Your task to perform on an android device: Open location settings Image 0: 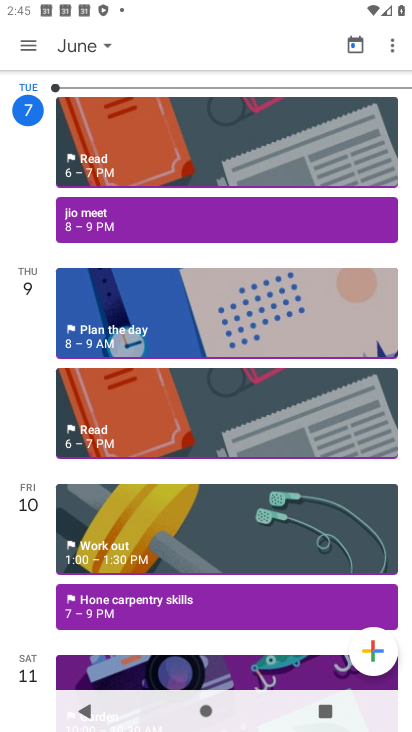
Step 0: press home button
Your task to perform on an android device: Open location settings Image 1: 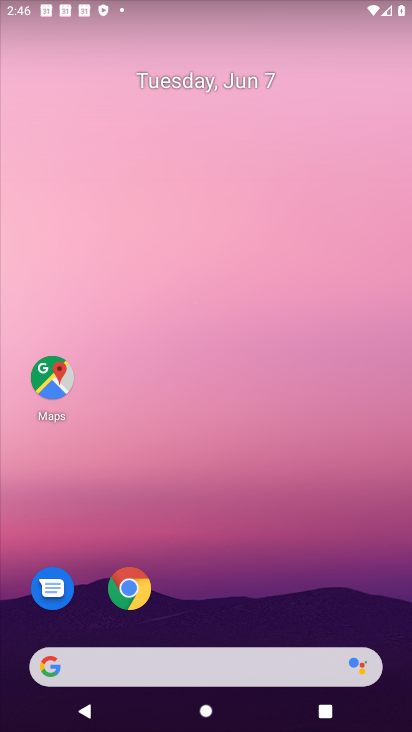
Step 1: drag from (319, 567) to (332, 122)
Your task to perform on an android device: Open location settings Image 2: 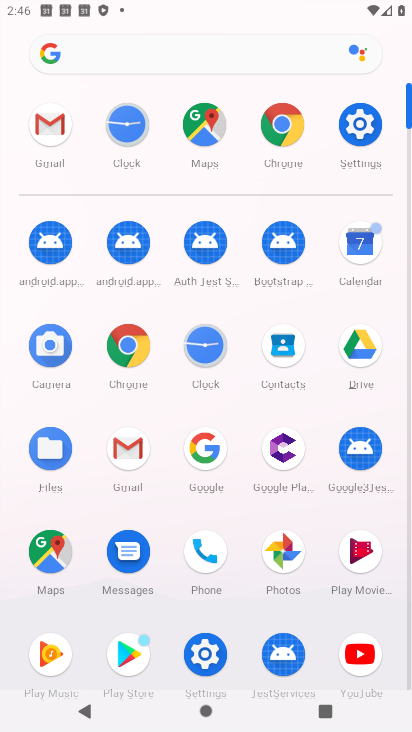
Step 2: click (348, 144)
Your task to perform on an android device: Open location settings Image 3: 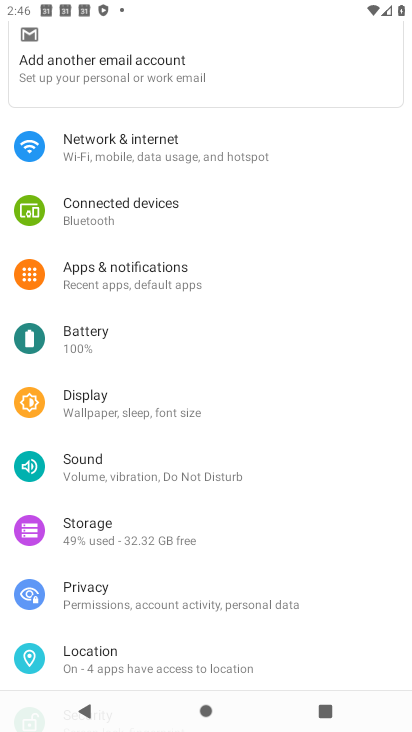
Step 3: click (138, 261)
Your task to perform on an android device: Open location settings Image 4: 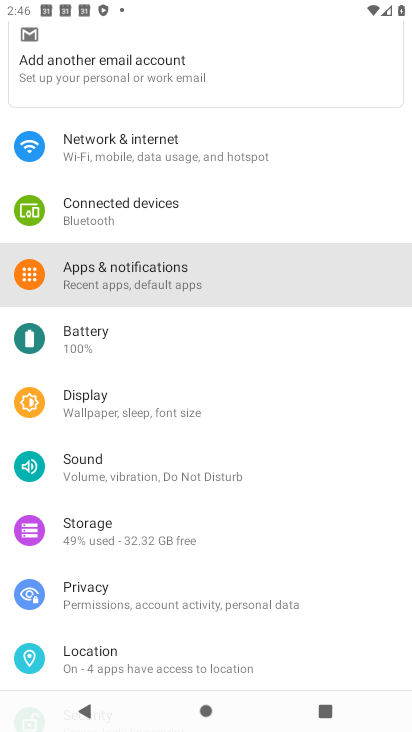
Step 4: task complete